Your task to perform on an android device: open app "Spotify: Music and Podcasts" (install if not already installed) and enter user name: "principled@inbox.com" and password: "arrests" Image 0: 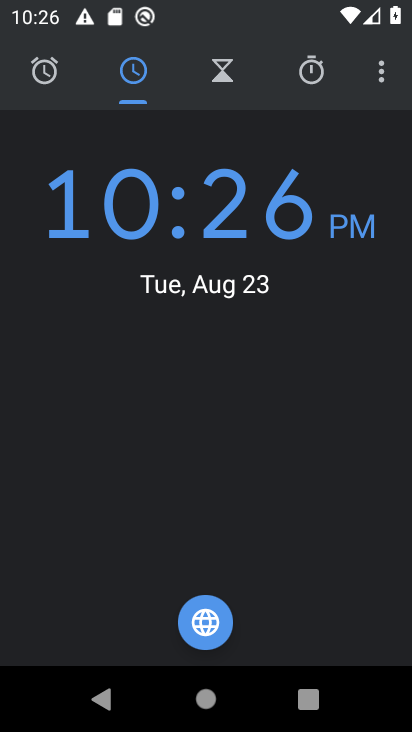
Step 0: press home button
Your task to perform on an android device: open app "Spotify: Music and Podcasts" (install if not already installed) and enter user name: "principled@inbox.com" and password: "arrests" Image 1: 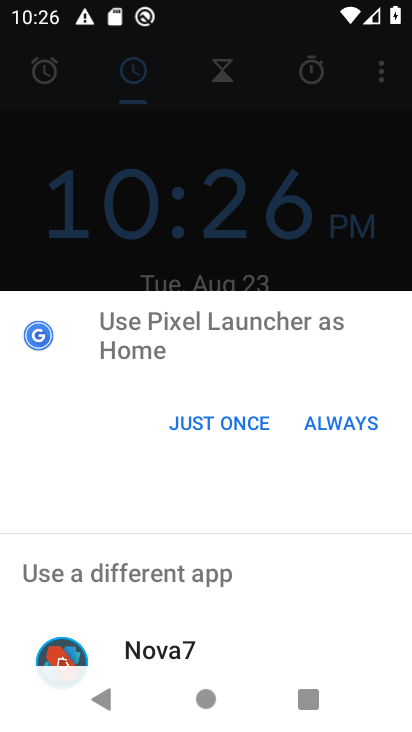
Step 1: click (191, 414)
Your task to perform on an android device: open app "Spotify: Music and Podcasts" (install if not already installed) and enter user name: "principled@inbox.com" and password: "arrests" Image 2: 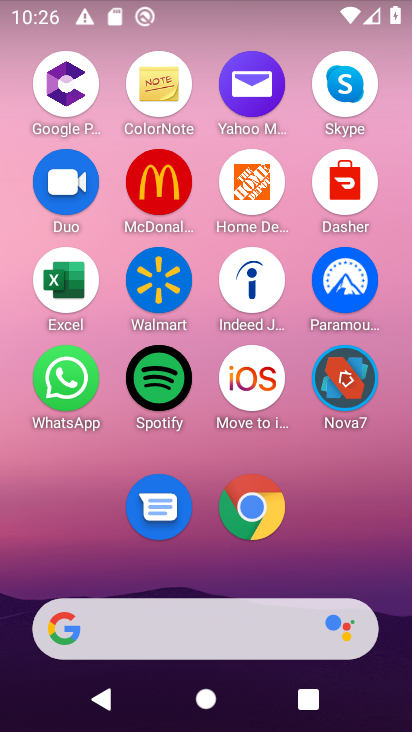
Step 2: click (154, 378)
Your task to perform on an android device: open app "Spotify: Music and Podcasts" (install if not already installed) and enter user name: "principled@inbox.com" and password: "arrests" Image 3: 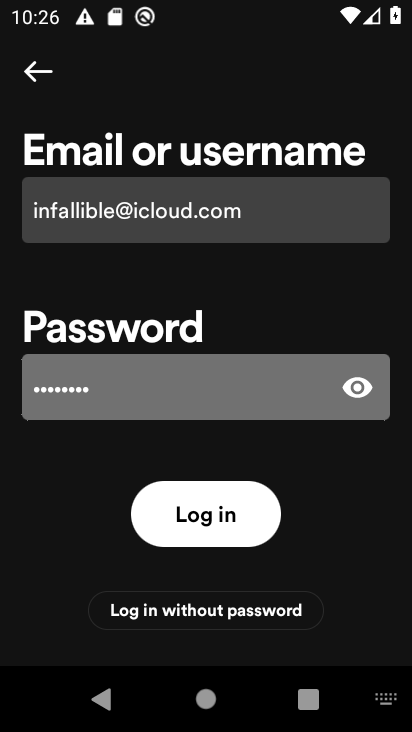
Step 3: click (289, 214)
Your task to perform on an android device: open app "Spotify: Music and Podcasts" (install if not already installed) and enter user name: "principled@inbox.com" and password: "arrests" Image 4: 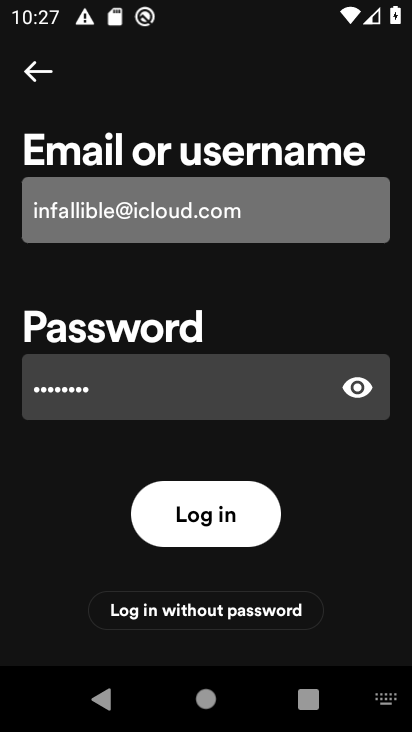
Step 4: press back button
Your task to perform on an android device: open app "Spotify: Music and Podcasts" (install if not already installed) and enter user name: "principled@inbox.com" and password: "arrests" Image 5: 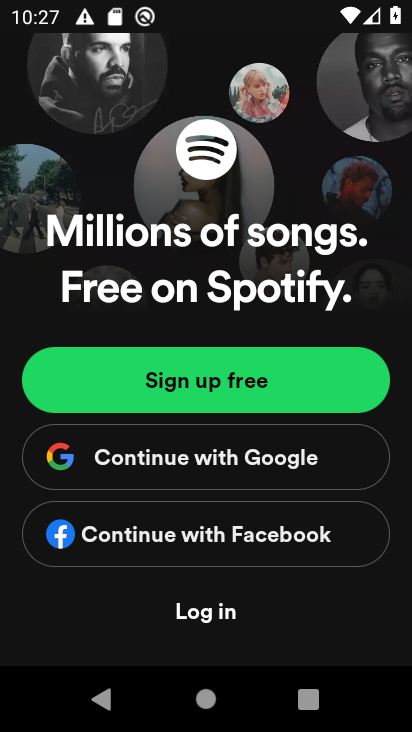
Step 5: click (205, 612)
Your task to perform on an android device: open app "Spotify: Music and Podcasts" (install if not already installed) and enter user name: "principled@inbox.com" and password: "arrests" Image 6: 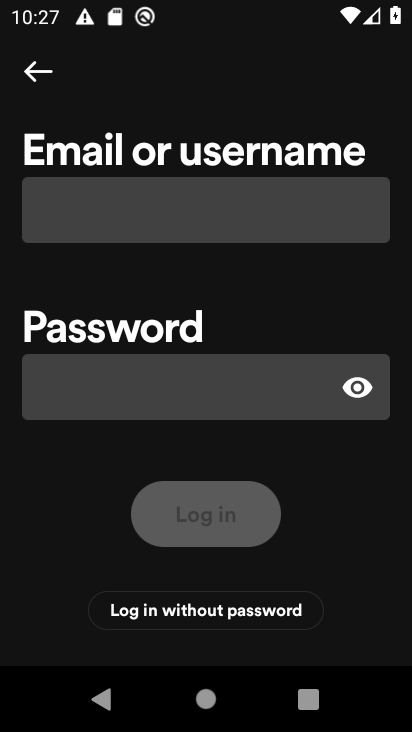
Step 6: click (83, 196)
Your task to perform on an android device: open app "Spotify: Music and Podcasts" (install if not already installed) and enter user name: "principled@inbox.com" and password: "arrests" Image 7: 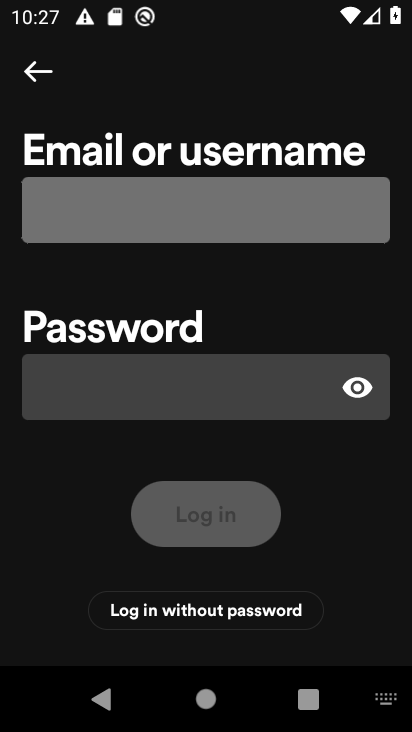
Step 7: type "principled@inbox.com"
Your task to perform on an android device: open app "Spotify: Music and Podcasts" (install if not already installed) and enter user name: "principled@inbox.com" and password: "arrests" Image 8: 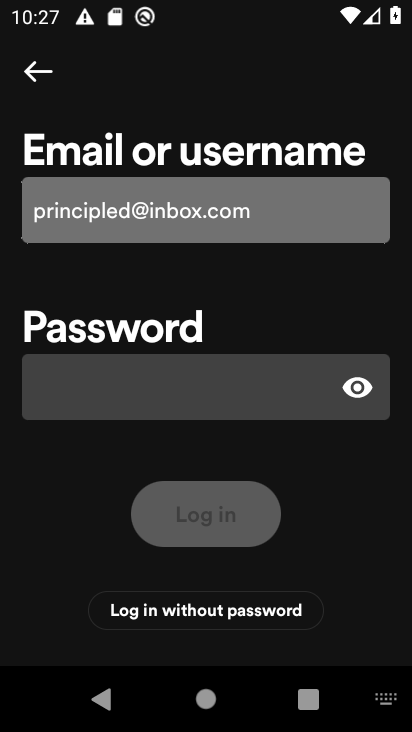
Step 8: click (126, 385)
Your task to perform on an android device: open app "Spotify: Music and Podcasts" (install if not already installed) and enter user name: "principled@inbox.com" and password: "arrests" Image 9: 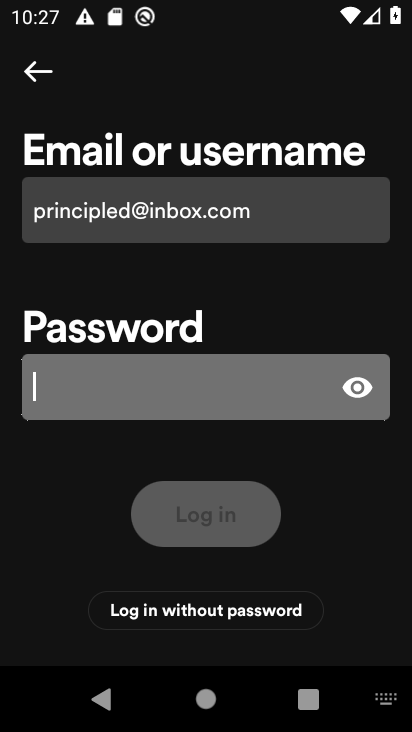
Step 9: type "arrests"
Your task to perform on an android device: open app "Spotify: Music and Podcasts" (install if not already installed) and enter user name: "principled@inbox.com" and password: "arrests" Image 10: 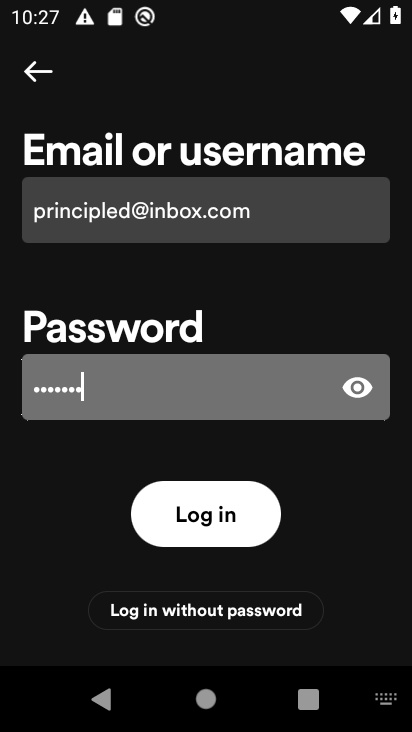
Step 10: task complete